Your task to perform on an android device: What is the news today? Image 0: 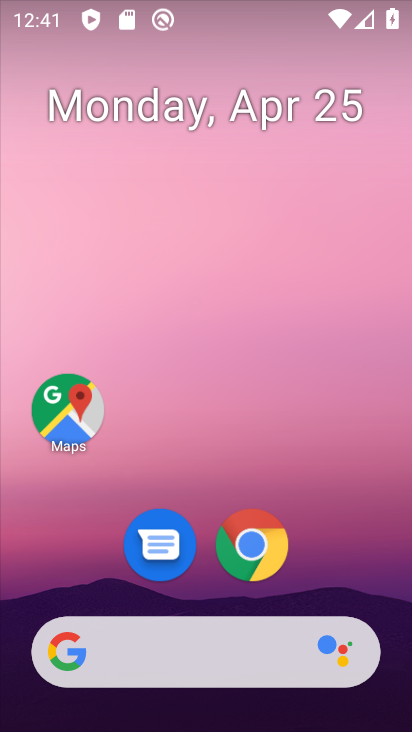
Step 0: press home button
Your task to perform on an android device: What is the news today? Image 1: 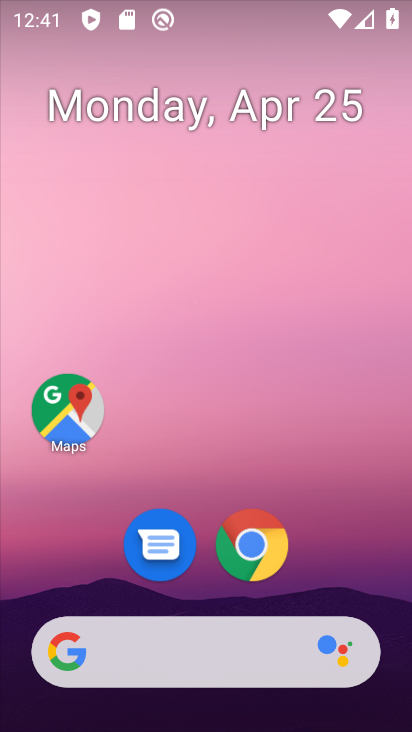
Step 1: click (257, 541)
Your task to perform on an android device: What is the news today? Image 2: 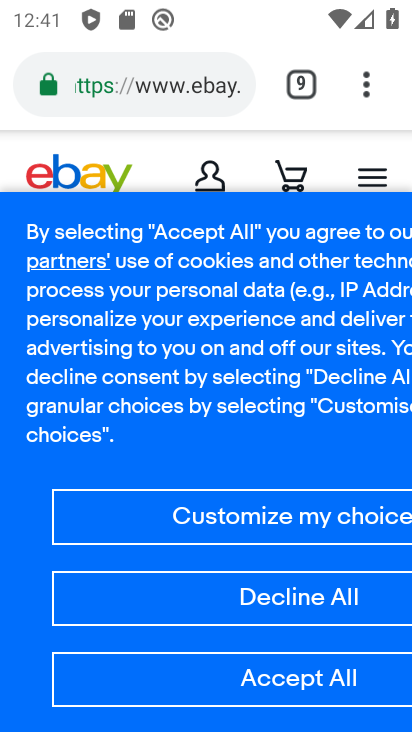
Step 2: click (309, 76)
Your task to perform on an android device: What is the news today? Image 3: 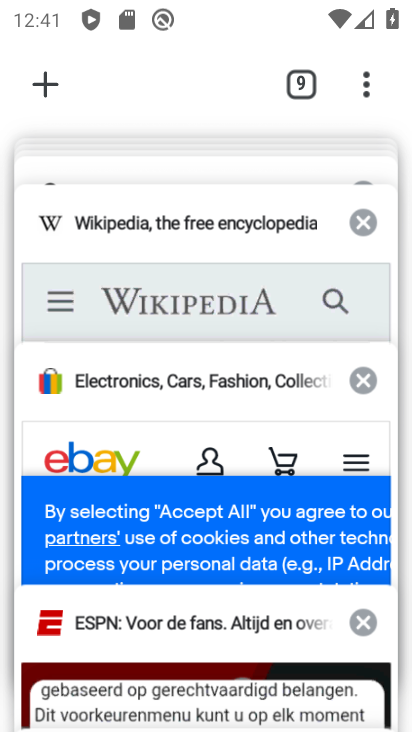
Step 3: drag from (175, 268) to (157, 608)
Your task to perform on an android device: What is the news today? Image 4: 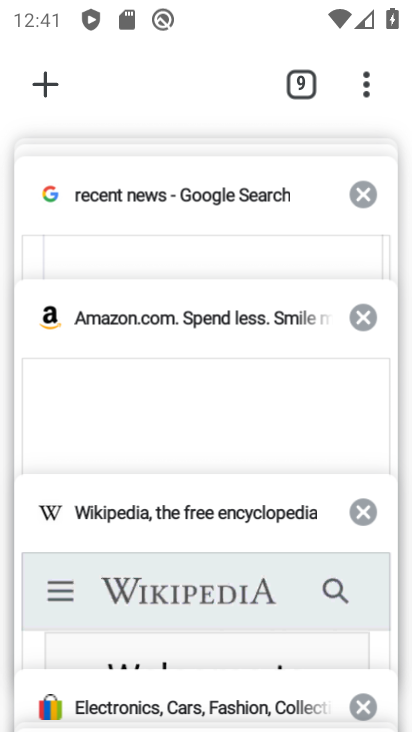
Step 4: drag from (155, 289) to (139, 590)
Your task to perform on an android device: What is the news today? Image 5: 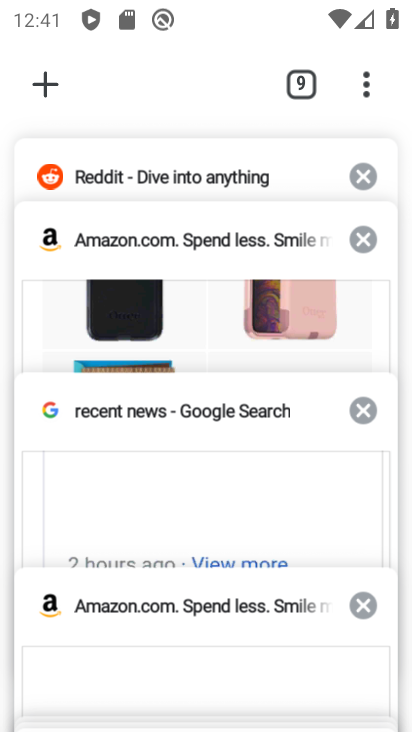
Step 5: drag from (127, 242) to (125, 552)
Your task to perform on an android device: What is the news today? Image 6: 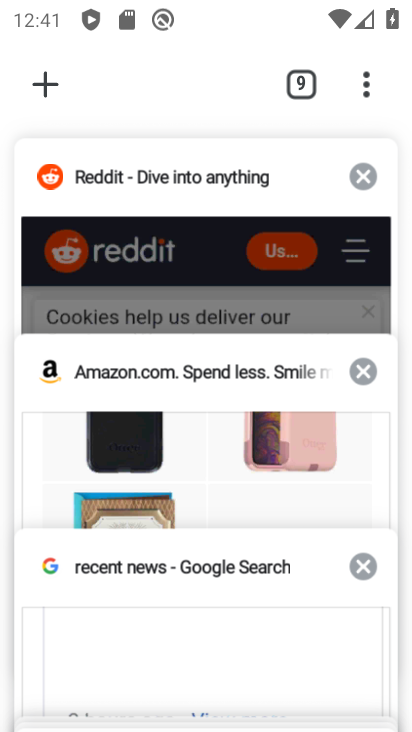
Step 6: click (48, 72)
Your task to perform on an android device: What is the news today? Image 7: 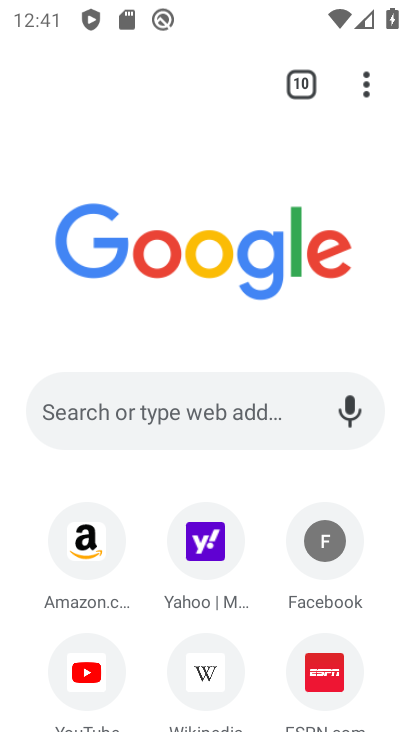
Step 7: click (130, 407)
Your task to perform on an android device: What is the news today? Image 8: 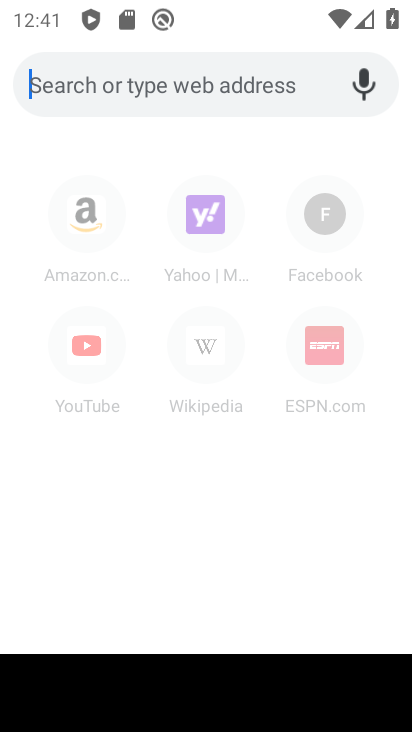
Step 8: type "what is the news today"
Your task to perform on an android device: What is the news today? Image 9: 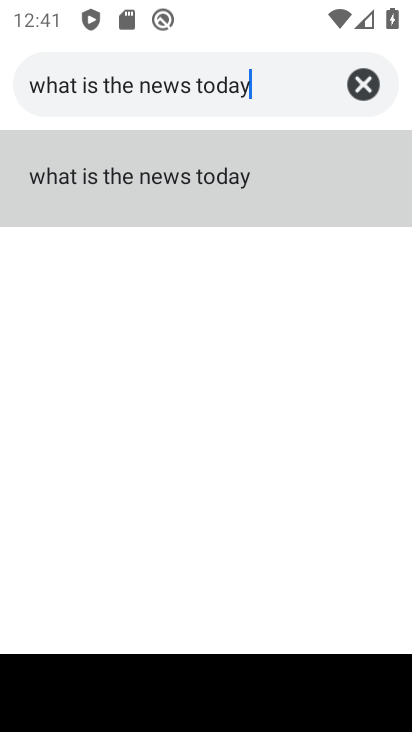
Step 9: click (75, 168)
Your task to perform on an android device: What is the news today? Image 10: 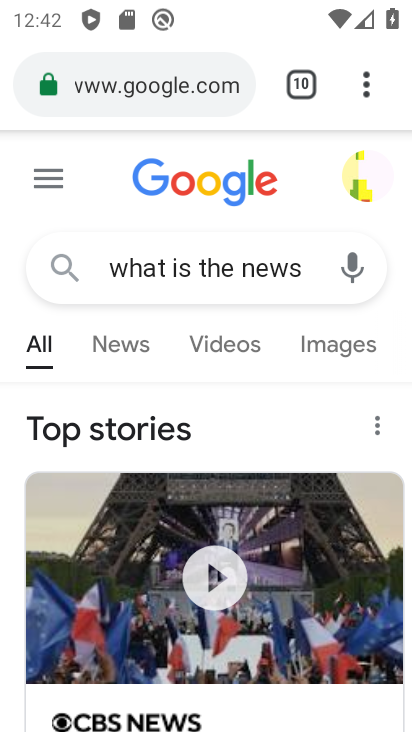
Step 10: click (120, 341)
Your task to perform on an android device: What is the news today? Image 11: 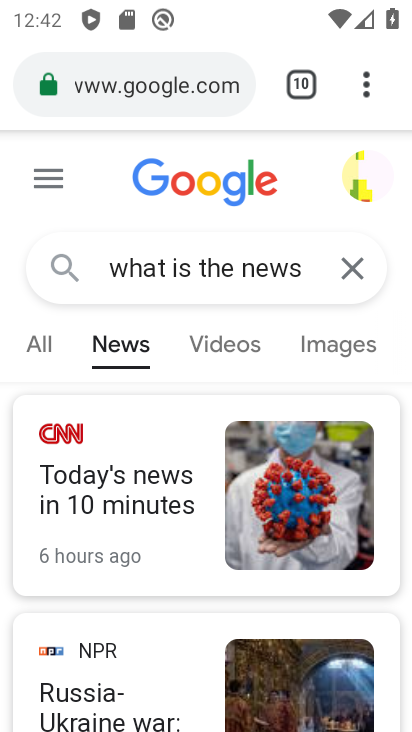
Step 11: task complete